Your task to perform on an android device: Go to Wikipedia Image 0: 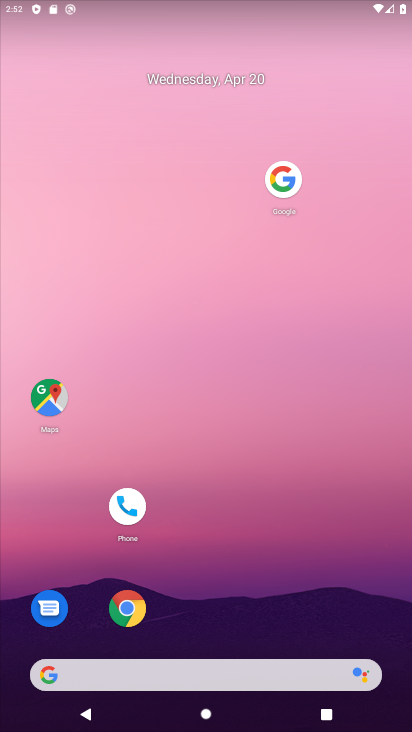
Step 0: click (279, 72)
Your task to perform on an android device: Go to Wikipedia Image 1: 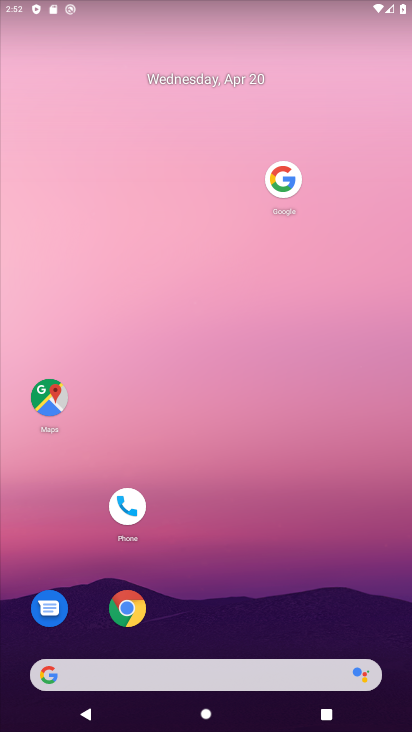
Step 1: drag from (298, 576) to (315, 107)
Your task to perform on an android device: Go to Wikipedia Image 2: 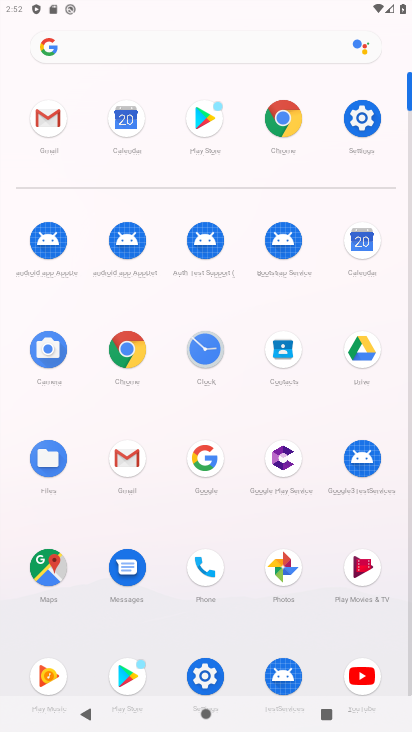
Step 2: click (126, 356)
Your task to perform on an android device: Go to Wikipedia Image 3: 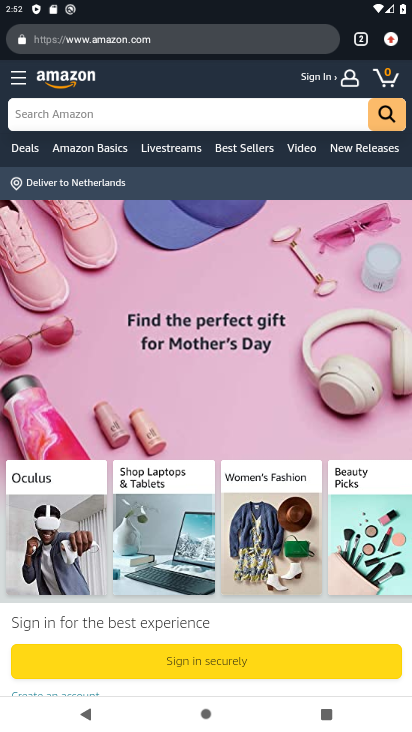
Step 3: click (212, 32)
Your task to perform on an android device: Go to Wikipedia Image 4: 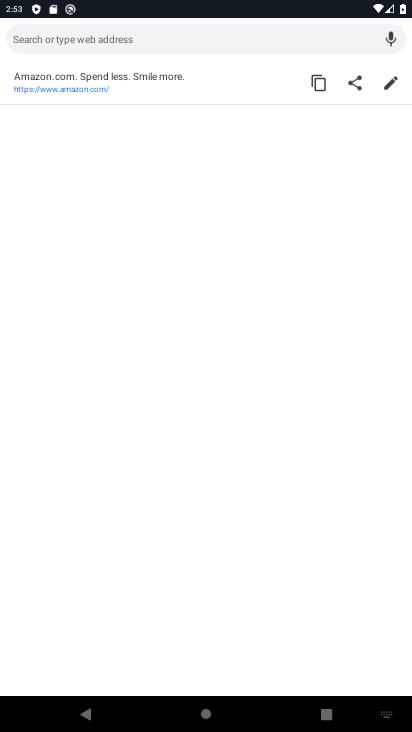
Step 4: type "w"
Your task to perform on an android device: Go to Wikipedia Image 5: 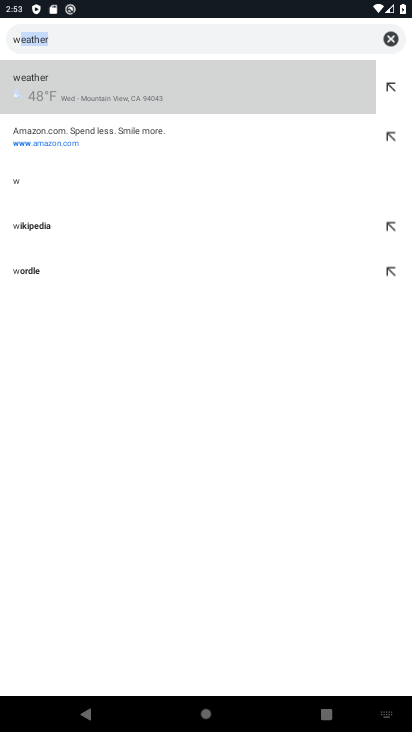
Step 5: type "wiki"
Your task to perform on an android device: Go to Wikipedia Image 6: 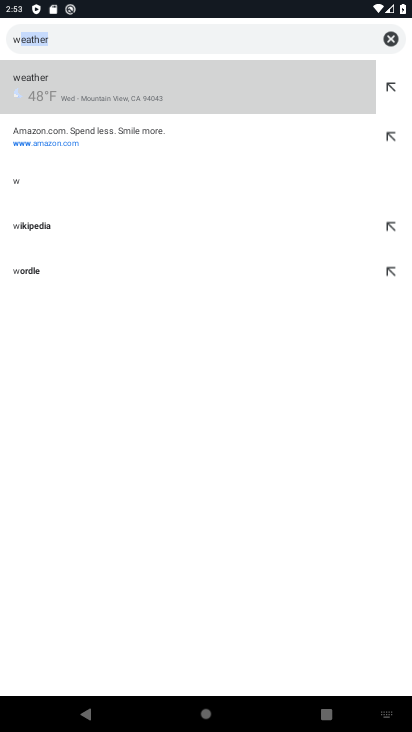
Step 6: click (38, 231)
Your task to perform on an android device: Go to Wikipedia Image 7: 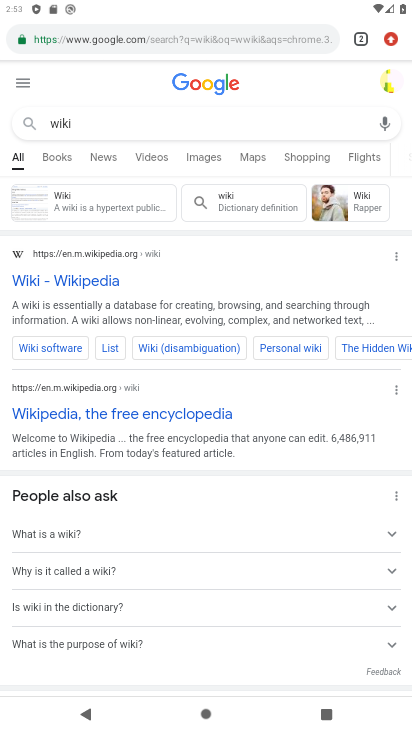
Step 7: click (78, 283)
Your task to perform on an android device: Go to Wikipedia Image 8: 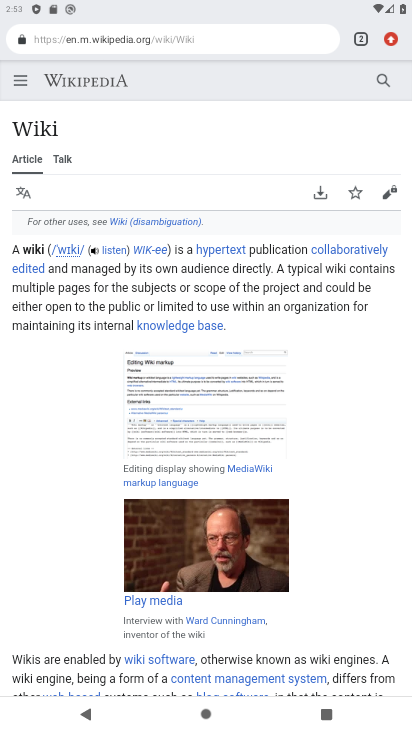
Step 8: task complete